Your task to perform on an android device: Go to privacy settings Image 0: 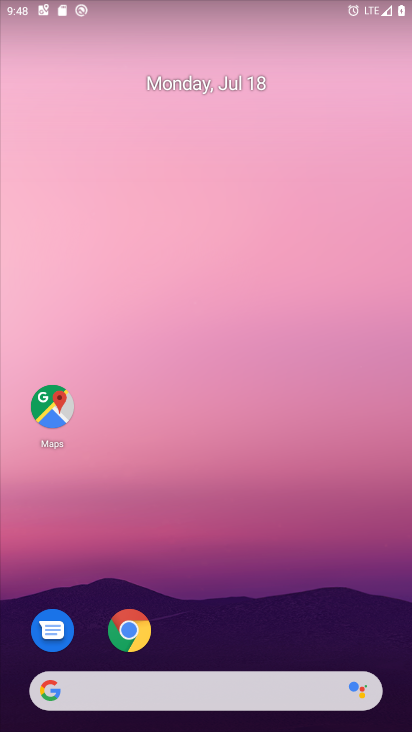
Step 0: drag from (175, 616) to (231, 148)
Your task to perform on an android device: Go to privacy settings Image 1: 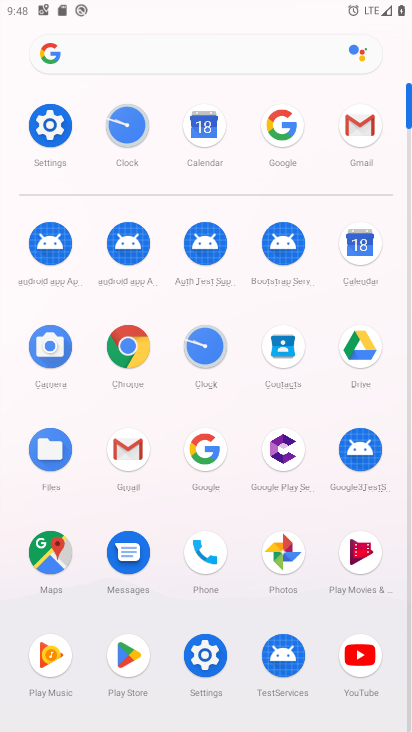
Step 1: click (33, 141)
Your task to perform on an android device: Go to privacy settings Image 2: 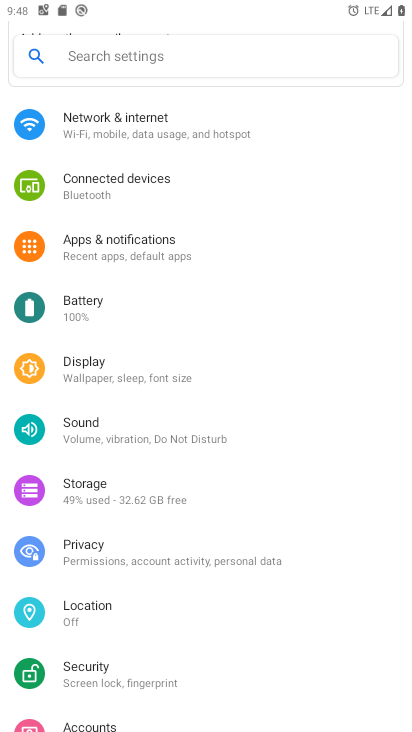
Step 2: click (137, 556)
Your task to perform on an android device: Go to privacy settings Image 3: 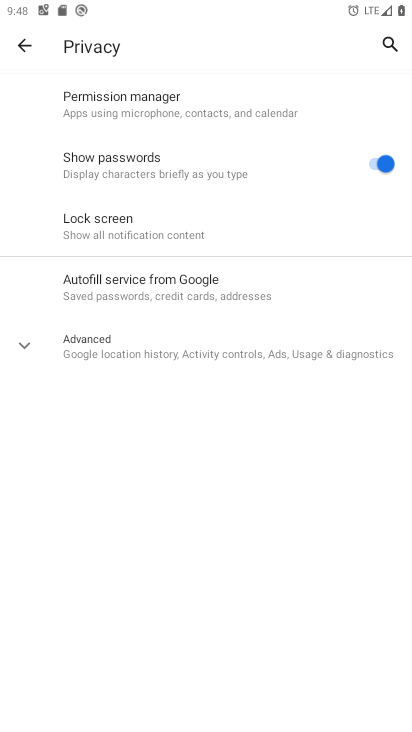
Step 3: task complete